Your task to perform on an android device: create a new album in the google photos Image 0: 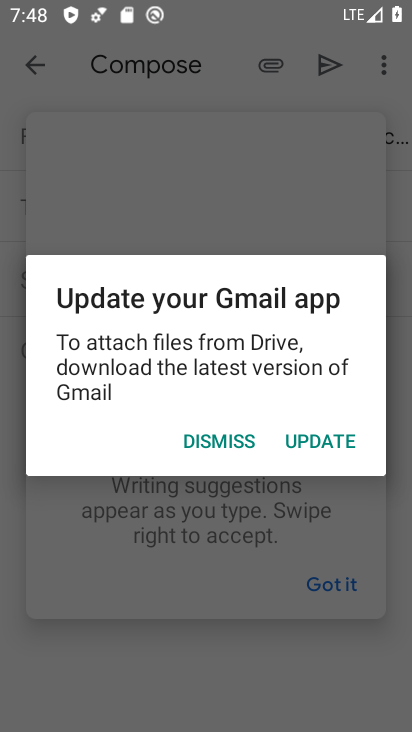
Step 0: press home button
Your task to perform on an android device: create a new album in the google photos Image 1: 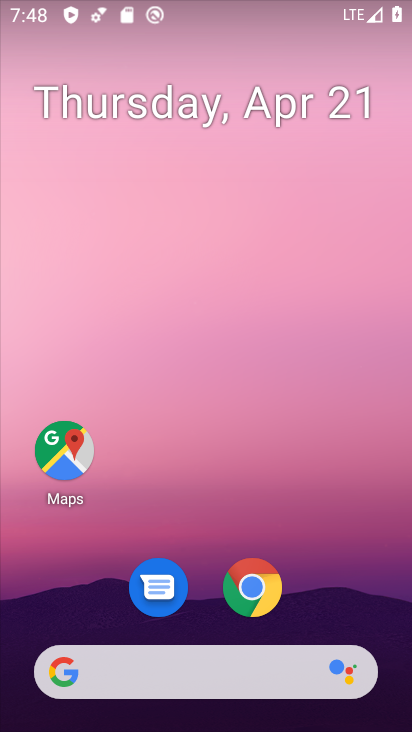
Step 1: drag from (391, 603) to (365, 232)
Your task to perform on an android device: create a new album in the google photos Image 2: 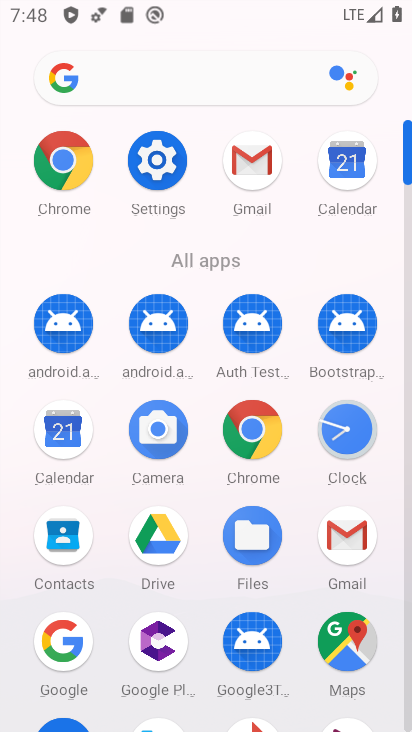
Step 2: drag from (408, 121) to (403, 53)
Your task to perform on an android device: create a new album in the google photos Image 3: 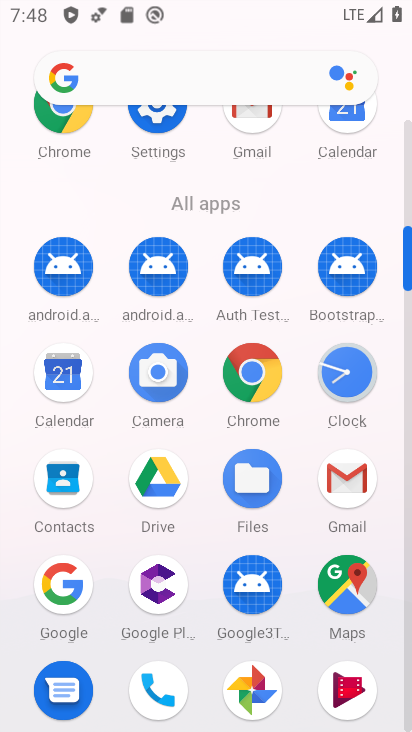
Step 3: click (244, 677)
Your task to perform on an android device: create a new album in the google photos Image 4: 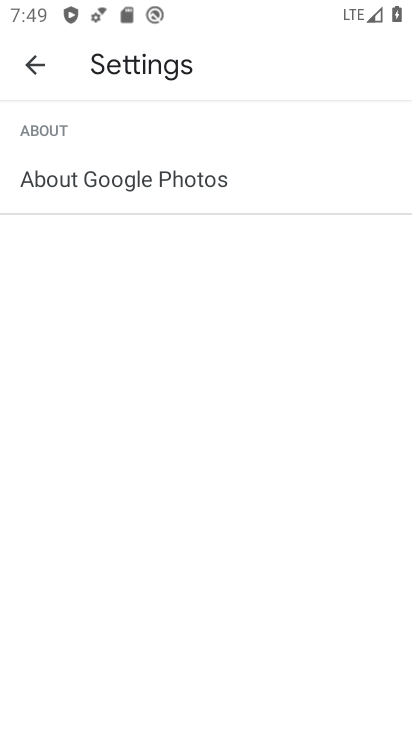
Step 4: click (30, 63)
Your task to perform on an android device: create a new album in the google photos Image 5: 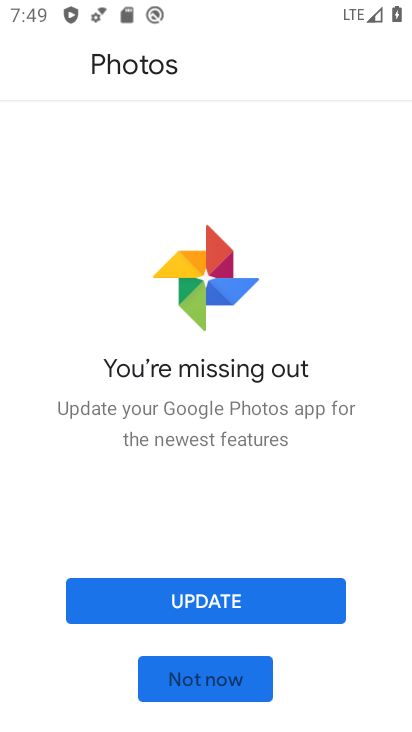
Step 5: click (275, 598)
Your task to perform on an android device: create a new album in the google photos Image 6: 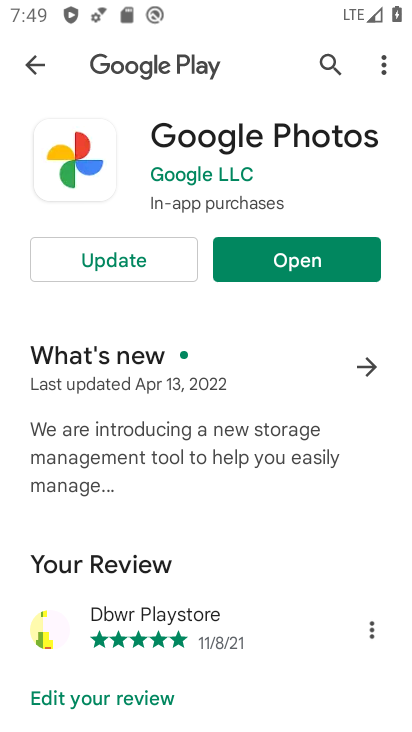
Step 6: click (129, 258)
Your task to perform on an android device: create a new album in the google photos Image 7: 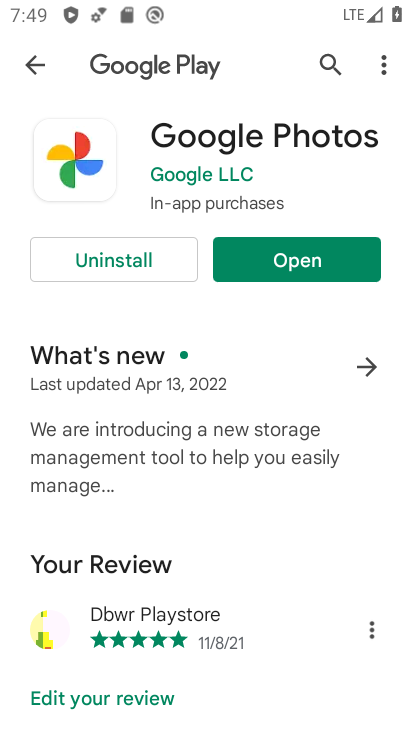
Step 7: click (287, 259)
Your task to perform on an android device: create a new album in the google photos Image 8: 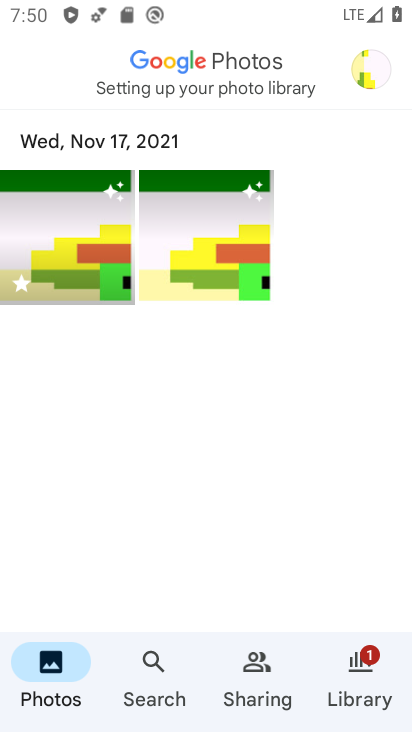
Step 8: click (363, 71)
Your task to perform on an android device: create a new album in the google photos Image 9: 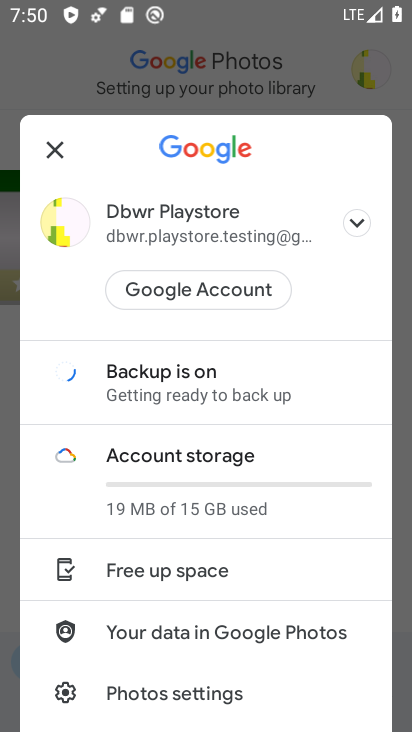
Step 9: drag from (341, 350) to (338, 273)
Your task to perform on an android device: create a new album in the google photos Image 10: 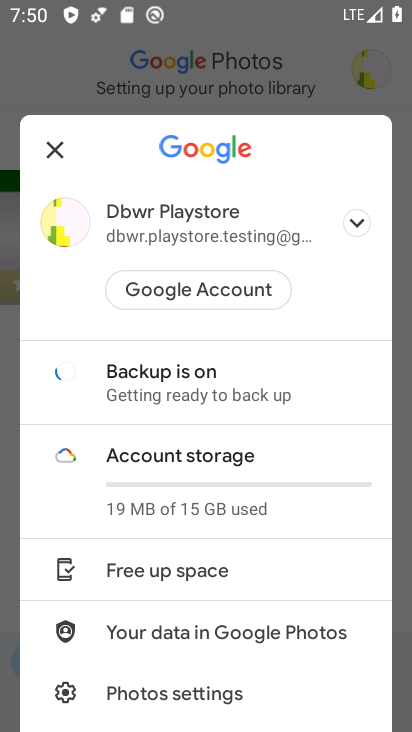
Step 10: drag from (303, 515) to (287, 313)
Your task to perform on an android device: create a new album in the google photos Image 11: 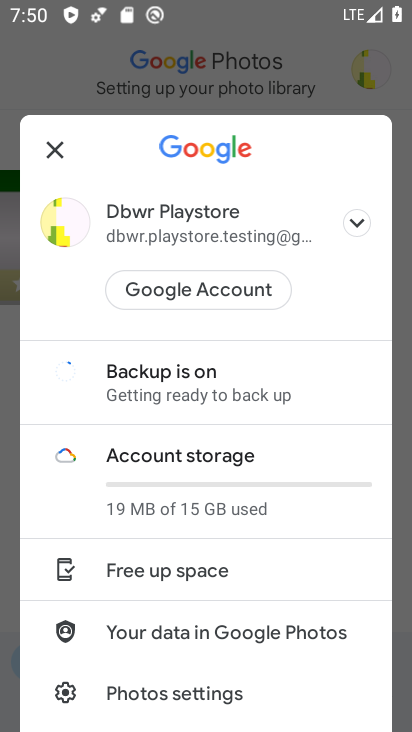
Step 11: drag from (353, 419) to (358, 189)
Your task to perform on an android device: create a new album in the google photos Image 12: 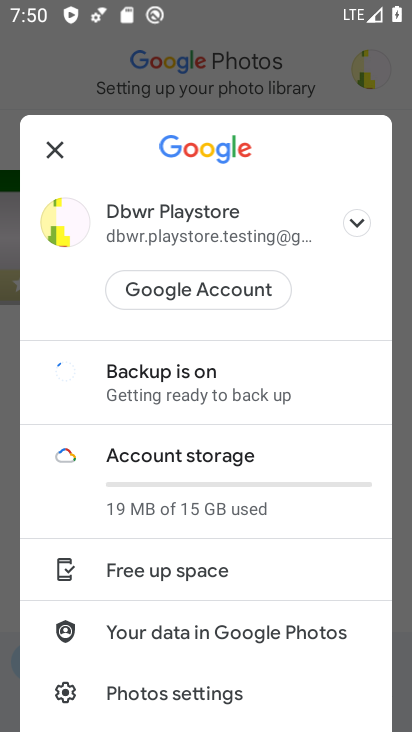
Step 12: click (55, 141)
Your task to perform on an android device: create a new album in the google photos Image 13: 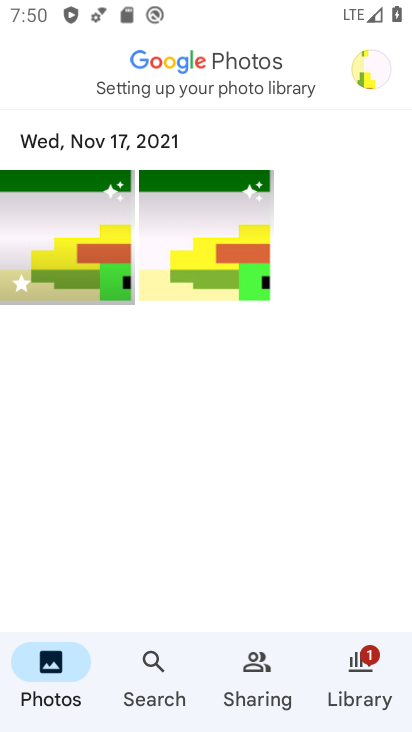
Step 13: task complete